Your task to perform on an android device: set default search engine in the chrome app Image 0: 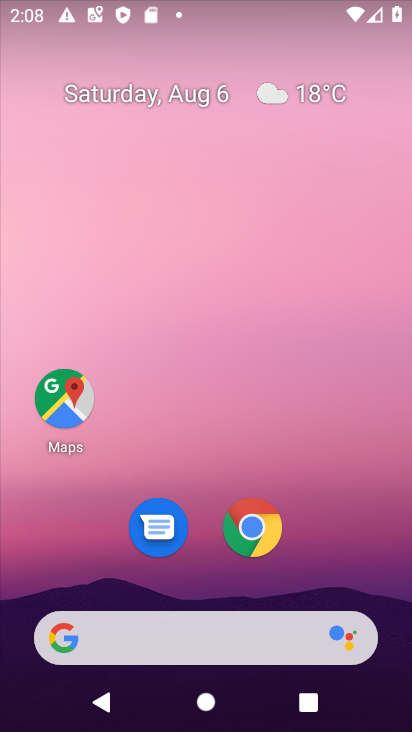
Step 0: click (264, 519)
Your task to perform on an android device: set default search engine in the chrome app Image 1: 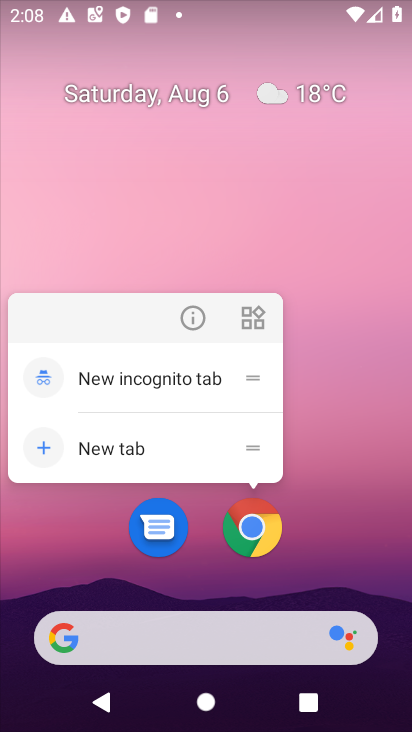
Step 1: click (264, 519)
Your task to perform on an android device: set default search engine in the chrome app Image 2: 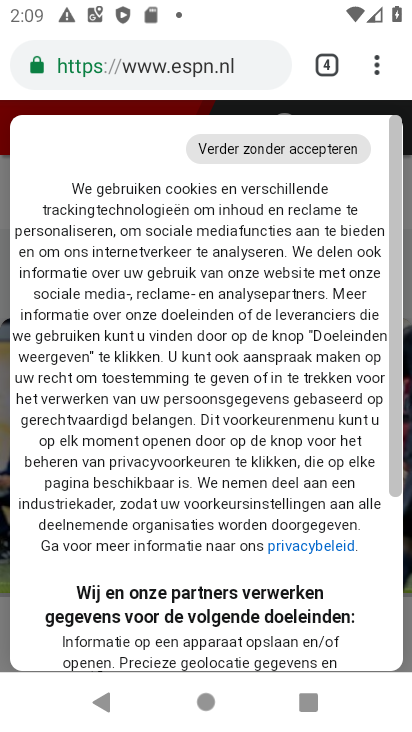
Step 2: click (377, 69)
Your task to perform on an android device: set default search engine in the chrome app Image 3: 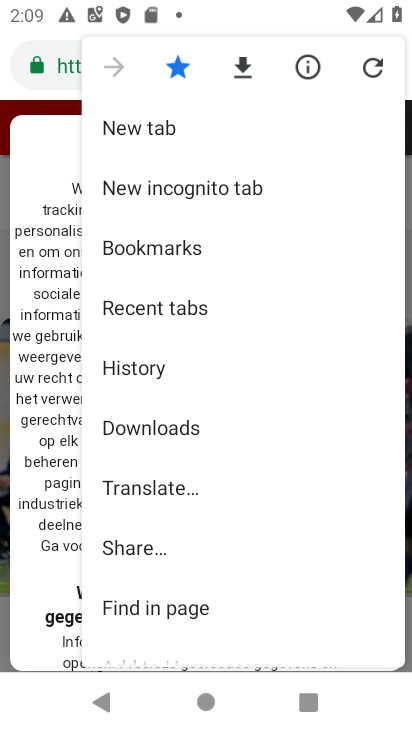
Step 3: drag from (198, 565) to (186, 147)
Your task to perform on an android device: set default search engine in the chrome app Image 4: 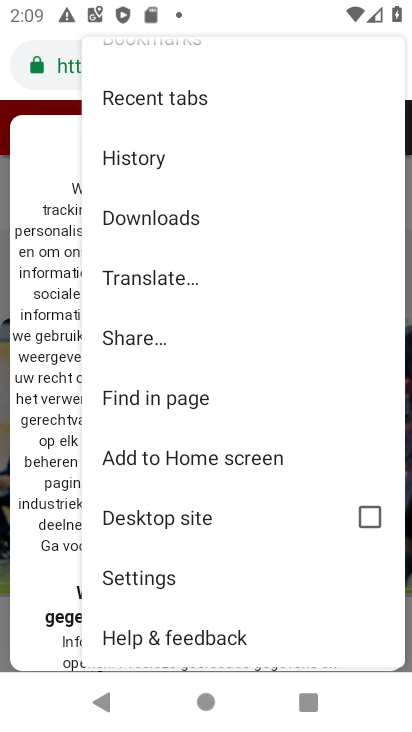
Step 4: click (186, 581)
Your task to perform on an android device: set default search engine in the chrome app Image 5: 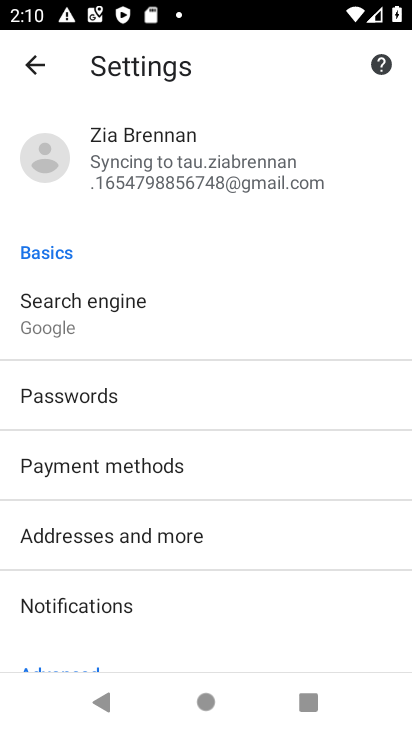
Step 5: drag from (187, 603) to (241, 470)
Your task to perform on an android device: set default search engine in the chrome app Image 6: 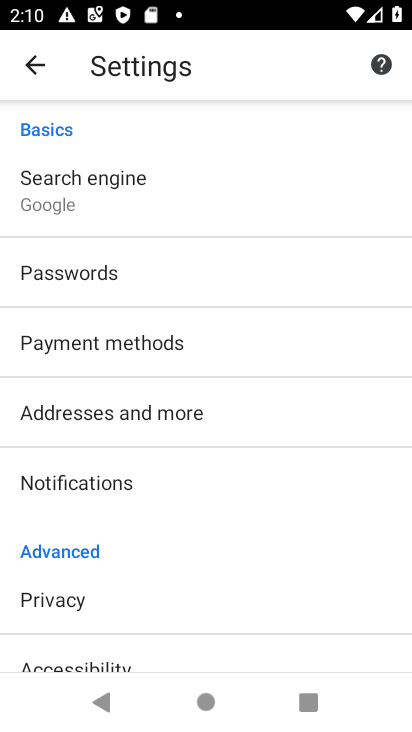
Step 6: click (121, 211)
Your task to perform on an android device: set default search engine in the chrome app Image 7: 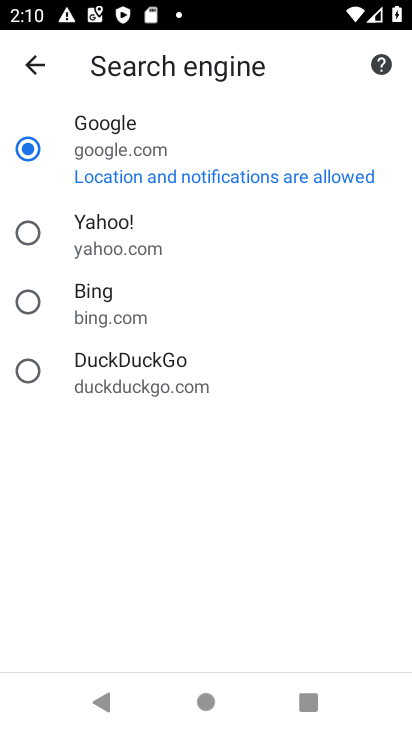
Step 7: click (264, 178)
Your task to perform on an android device: set default search engine in the chrome app Image 8: 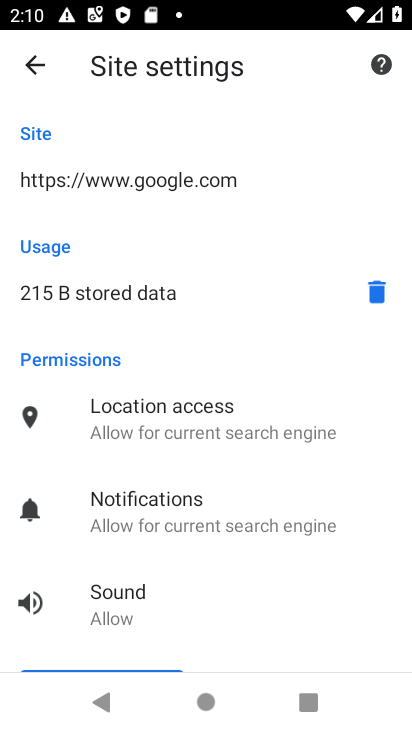
Step 8: task complete